Your task to perform on an android device: Open accessibility settings Image 0: 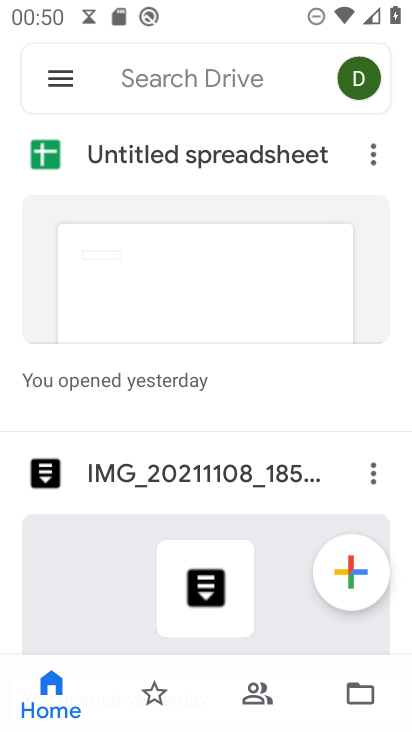
Step 0: press home button
Your task to perform on an android device: Open accessibility settings Image 1: 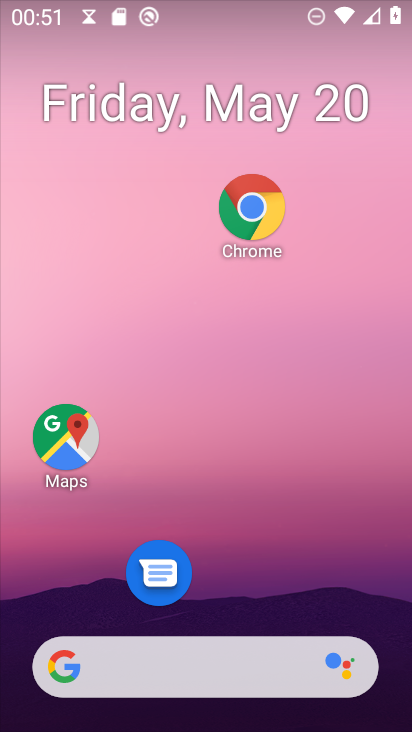
Step 1: drag from (296, 579) to (318, 0)
Your task to perform on an android device: Open accessibility settings Image 2: 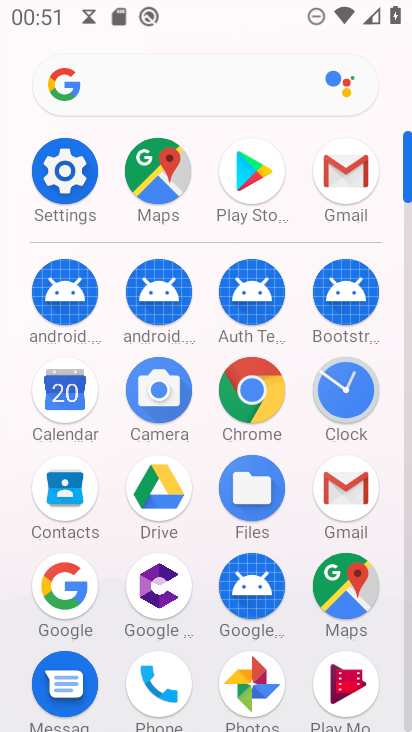
Step 2: click (72, 179)
Your task to perform on an android device: Open accessibility settings Image 3: 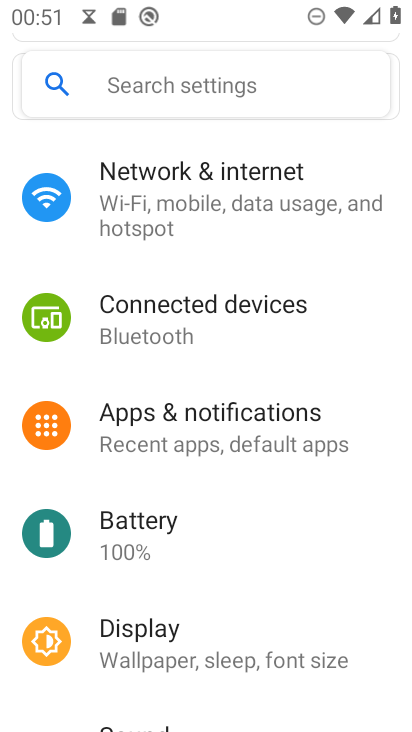
Step 3: drag from (206, 631) to (185, 206)
Your task to perform on an android device: Open accessibility settings Image 4: 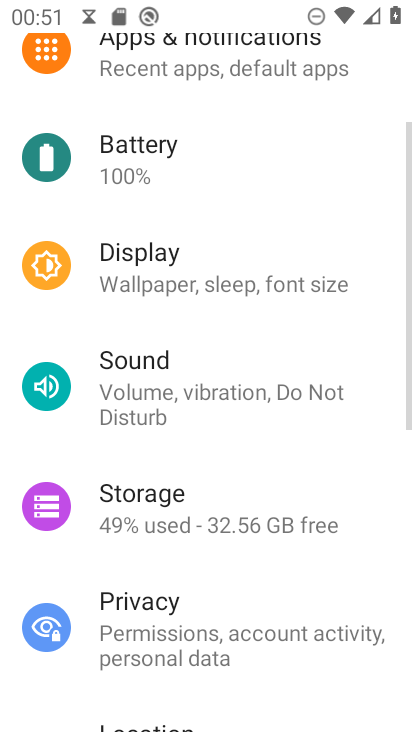
Step 4: drag from (207, 578) to (191, 223)
Your task to perform on an android device: Open accessibility settings Image 5: 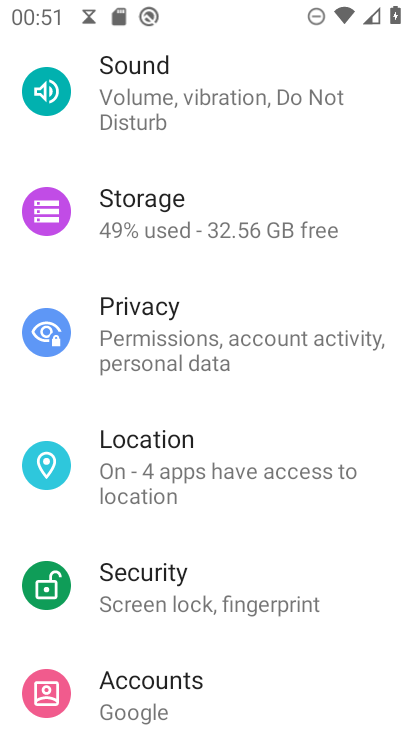
Step 5: drag from (173, 499) to (248, 209)
Your task to perform on an android device: Open accessibility settings Image 6: 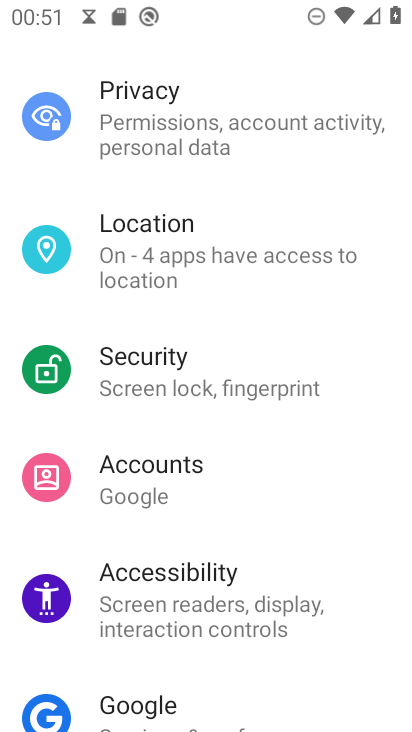
Step 6: click (198, 575)
Your task to perform on an android device: Open accessibility settings Image 7: 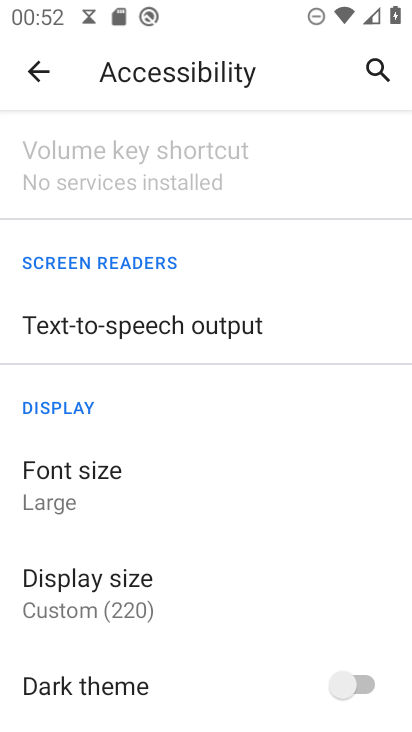
Step 7: task complete